Your task to perform on an android device: Go to calendar. Show me events next week Image 0: 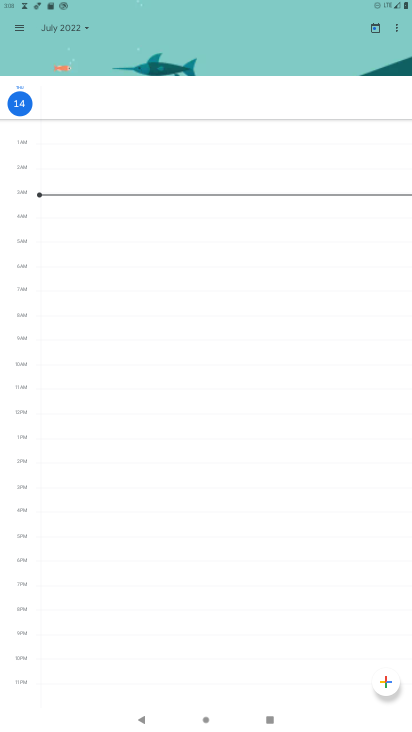
Step 0: press home button
Your task to perform on an android device: Go to calendar. Show me events next week Image 1: 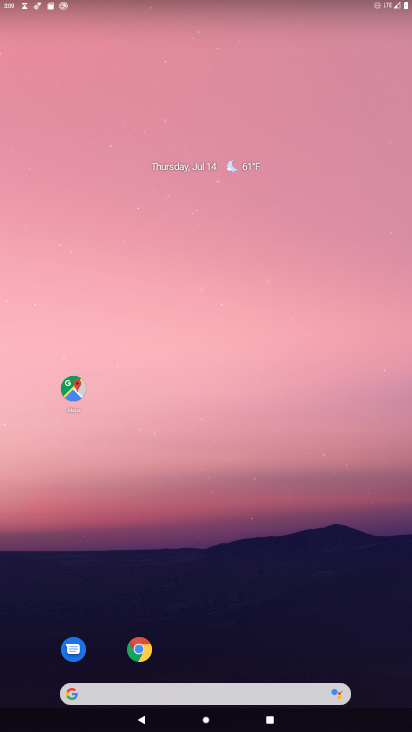
Step 1: drag from (214, 639) to (219, 86)
Your task to perform on an android device: Go to calendar. Show me events next week Image 2: 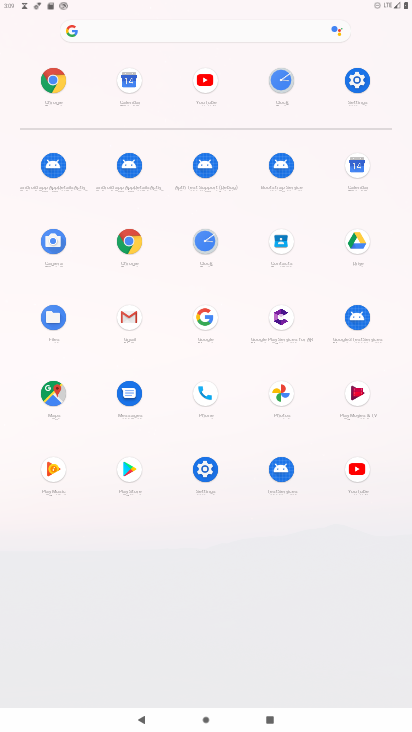
Step 2: click (352, 175)
Your task to perform on an android device: Go to calendar. Show me events next week Image 3: 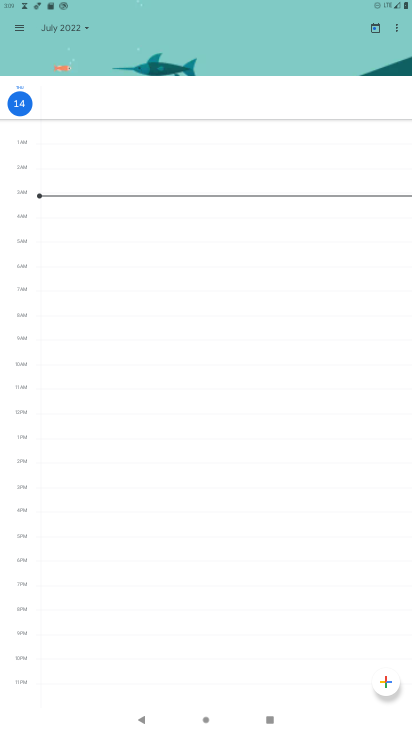
Step 3: click (83, 24)
Your task to perform on an android device: Go to calendar. Show me events next week Image 4: 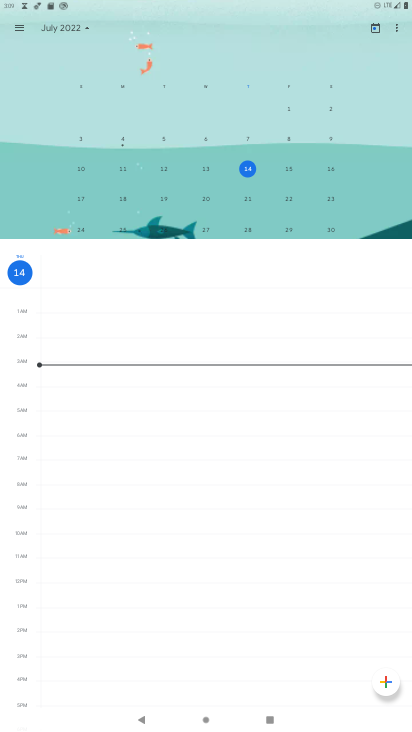
Step 4: click (202, 197)
Your task to perform on an android device: Go to calendar. Show me events next week Image 5: 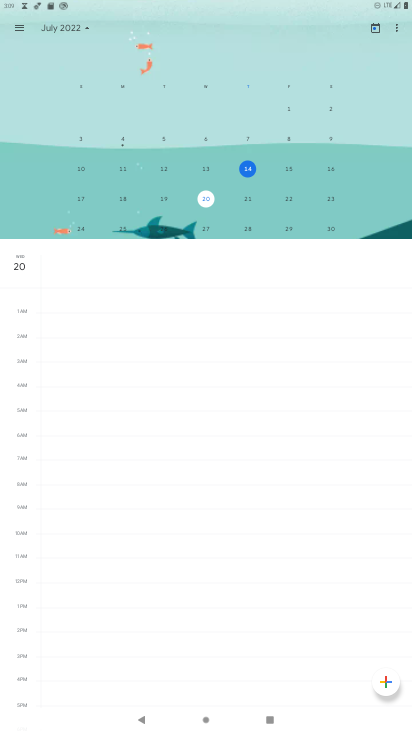
Step 5: click (16, 26)
Your task to perform on an android device: Go to calendar. Show me events next week Image 6: 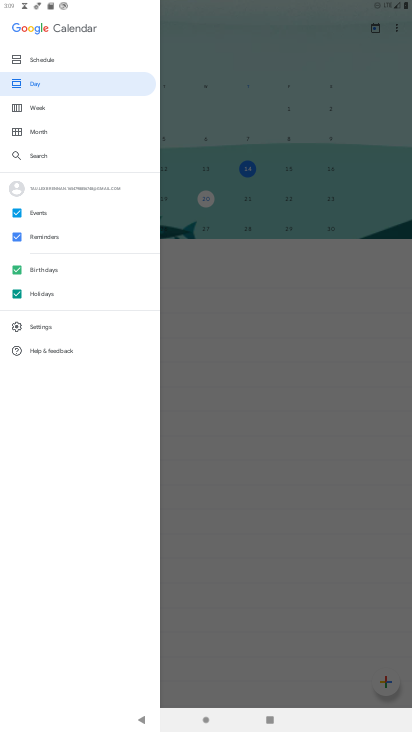
Step 6: click (45, 108)
Your task to perform on an android device: Go to calendar. Show me events next week Image 7: 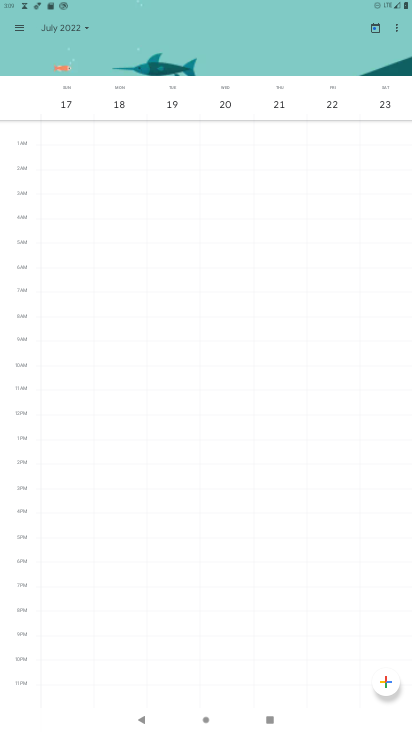
Step 7: task complete